Your task to perform on an android device: toggle show notifications on the lock screen Image 0: 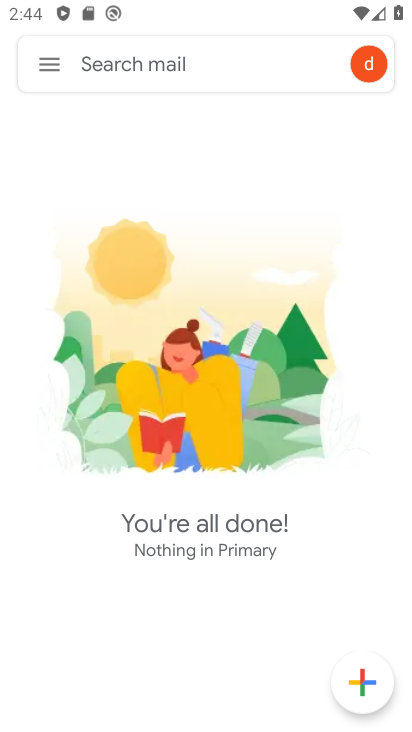
Step 0: press home button
Your task to perform on an android device: toggle show notifications on the lock screen Image 1: 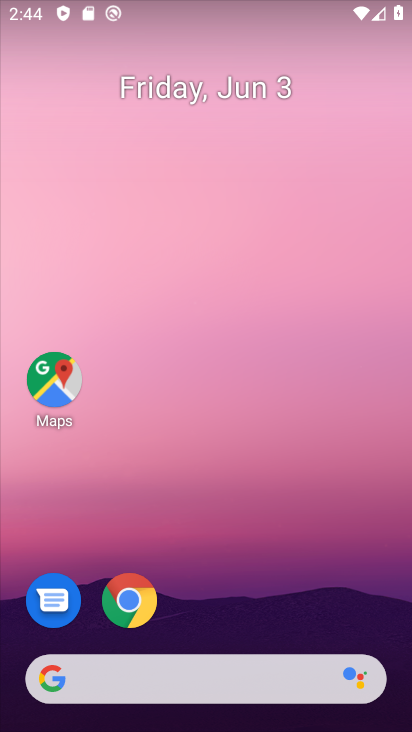
Step 1: drag from (276, 569) to (255, 144)
Your task to perform on an android device: toggle show notifications on the lock screen Image 2: 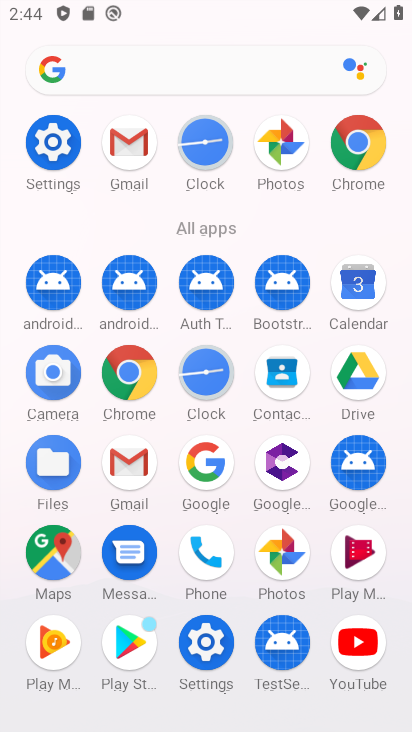
Step 2: click (50, 170)
Your task to perform on an android device: toggle show notifications on the lock screen Image 3: 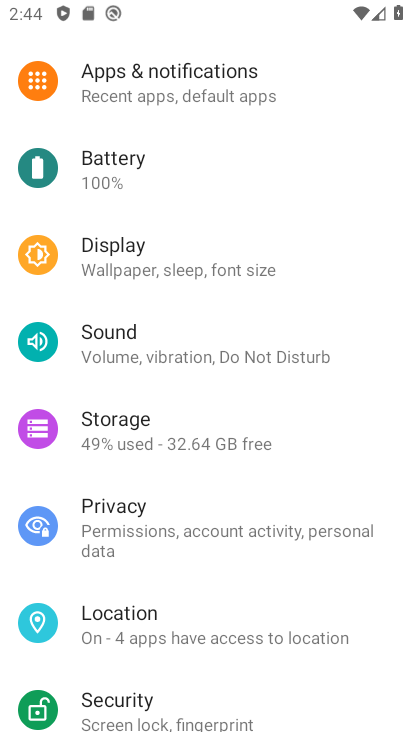
Step 3: click (167, 74)
Your task to perform on an android device: toggle show notifications on the lock screen Image 4: 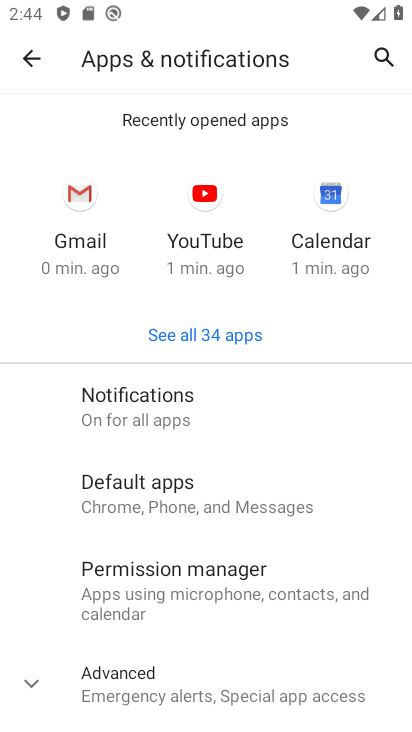
Step 4: click (191, 418)
Your task to perform on an android device: toggle show notifications on the lock screen Image 5: 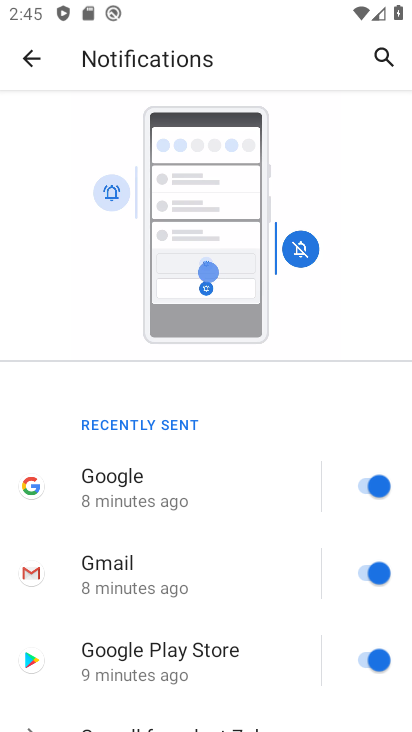
Step 5: drag from (205, 555) to (151, 279)
Your task to perform on an android device: toggle show notifications on the lock screen Image 6: 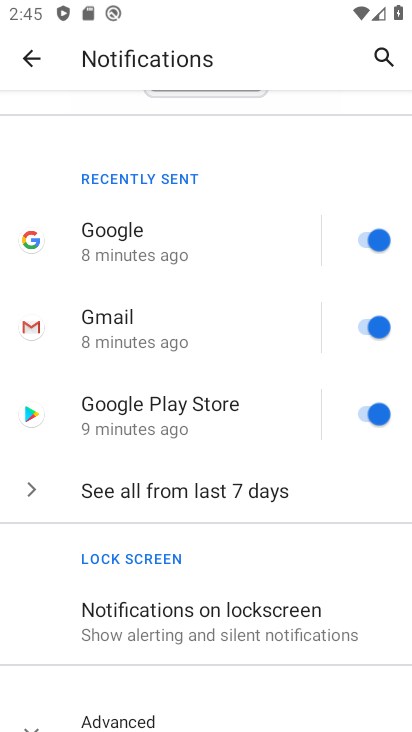
Step 6: click (175, 597)
Your task to perform on an android device: toggle show notifications on the lock screen Image 7: 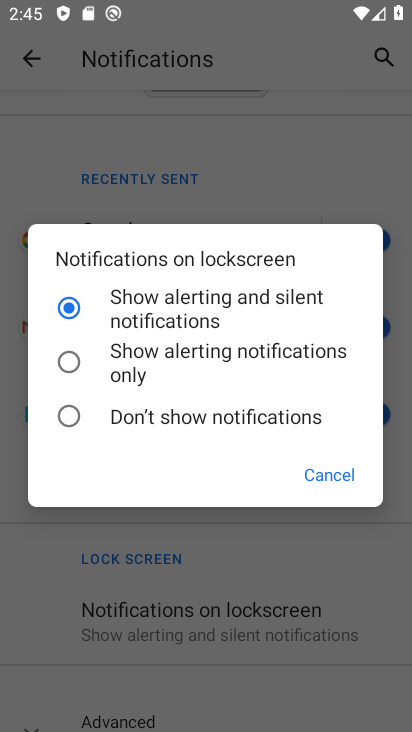
Step 7: click (189, 421)
Your task to perform on an android device: toggle show notifications on the lock screen Image 8: 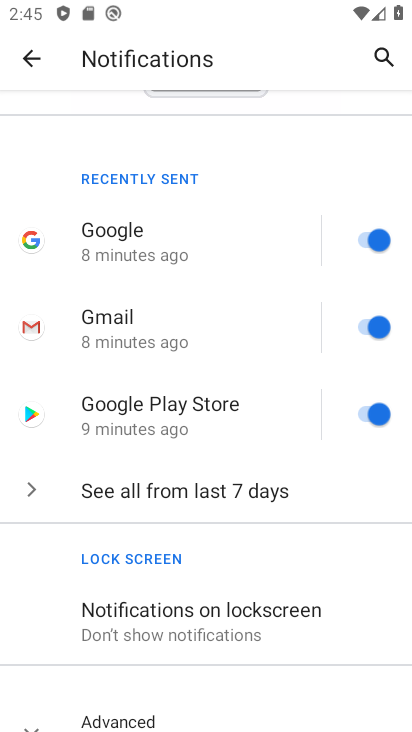
Step 8: task complete